Your task to perform on an android device: toggle pop-ups in chrome Image 0: 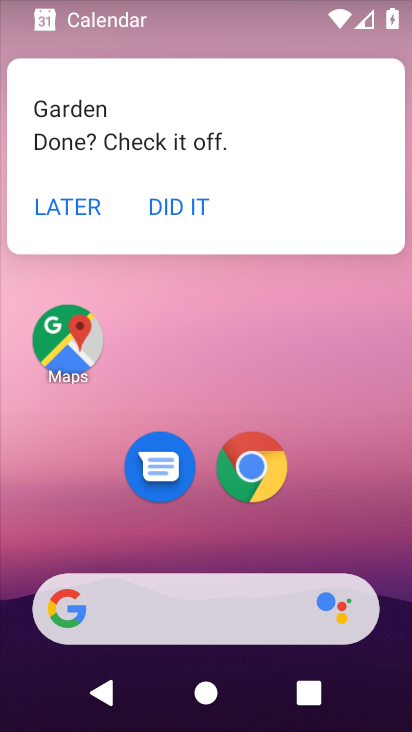
Step 0: click (257, 473)
Your task to perform on an android device: toggle pop-ups in chrome Image 1: 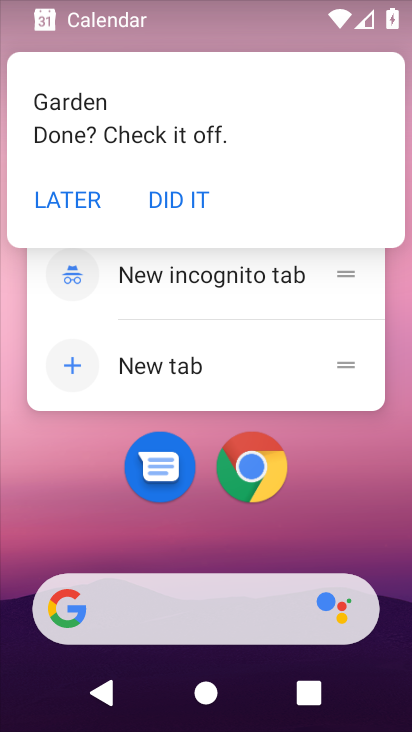
Step 1: click (257, 473)
Your task to perform on an android device: toggle pop-ups in chrome Image 2: 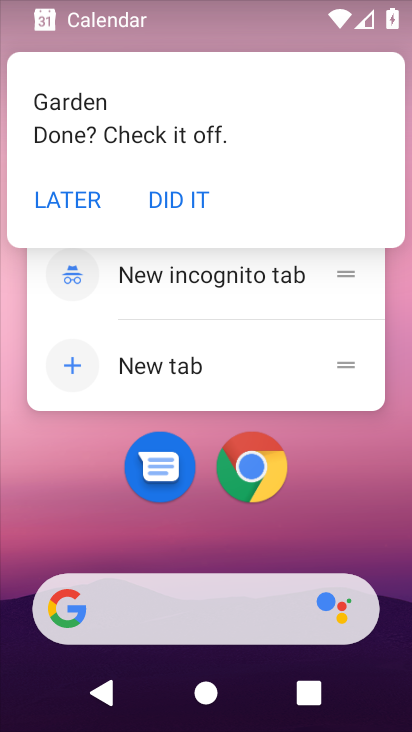
Step 2: click (265, 482)
Your task to perform on an android device: toggle pop-ups in chrome Image 3: 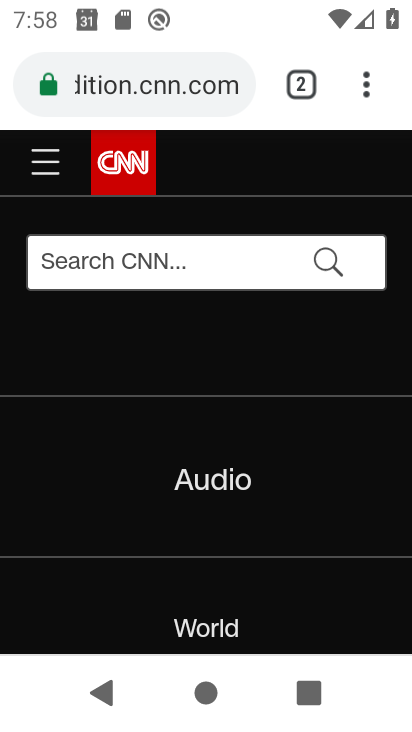
Step 3: click (366, 83)
Your task to perform on an android device: toggle pop-ups in chrome Image 4: 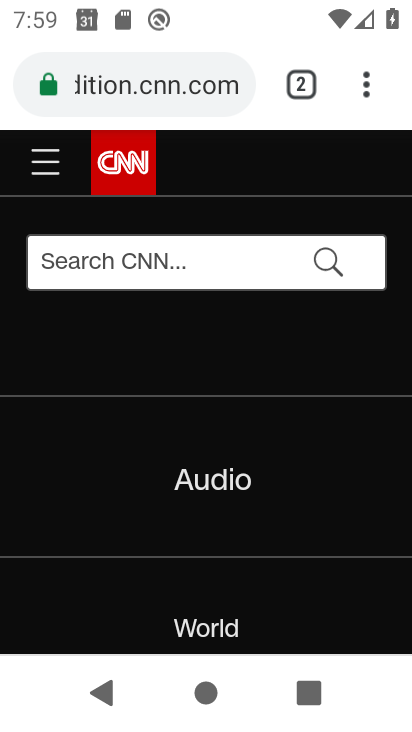
Step 4: click (367, 86)
Your task to perform on an android device: toggle pop-ups in chrome Image 5: 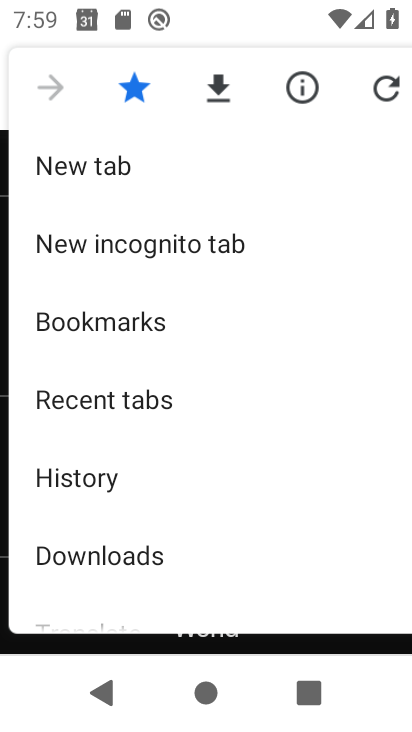
Step 5: drag from (126, 569) to (117, 287)
Your task to perform on an android device: toggle pop-ups in chrome Image 6: 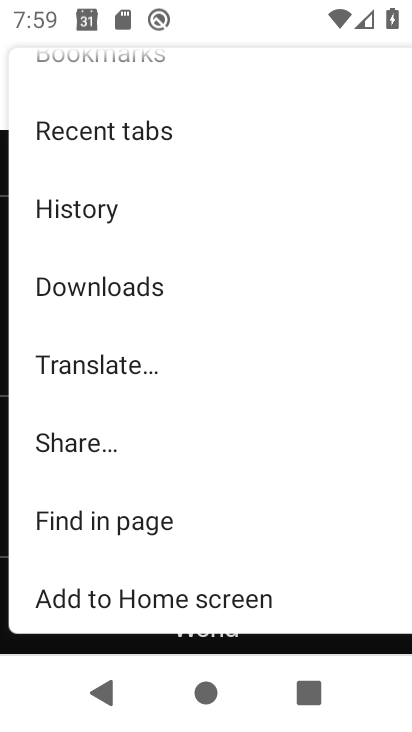
Step 6: drag from (121, 557) to (100, 375)
Your task to perform on an android device: toggle pop-ups in chrome Image 7: 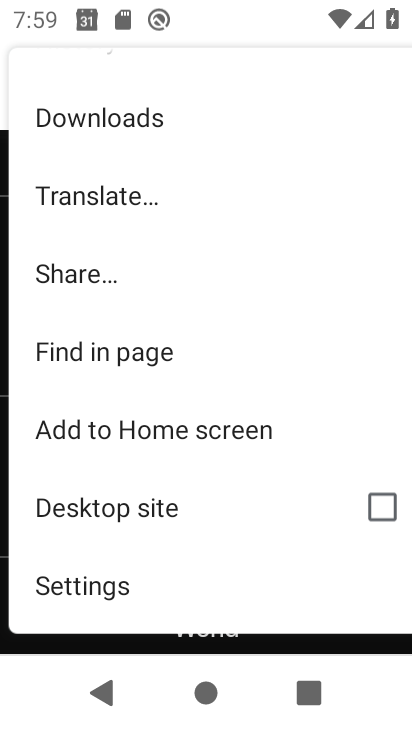
Step 7: click (139, 577)
Your task to perform on an android device: toggle pop-ups in chrome Image 8: 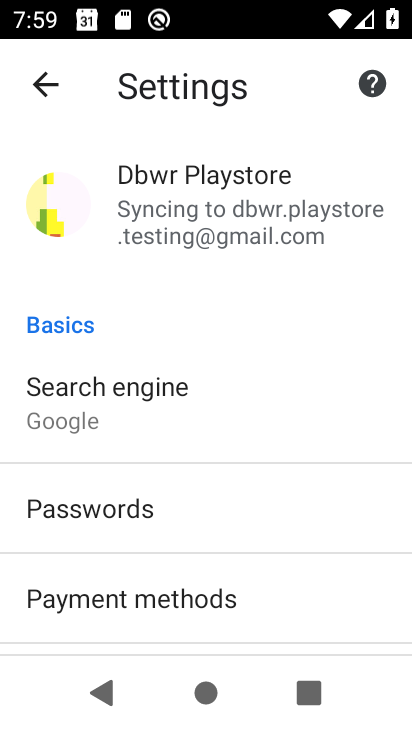
Step 8: drag from (103, 617) to (93, 511)
Your task to perform on an android device: toggle pop-ups in chrome Image 9: 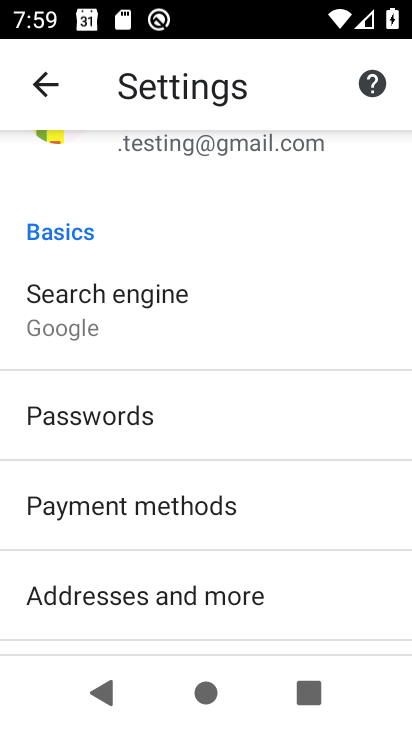
Step 9: drag from (114, 601) to (103, 488)
Your task to perform on an android device: toggle pop-ups in chrome Image 10: 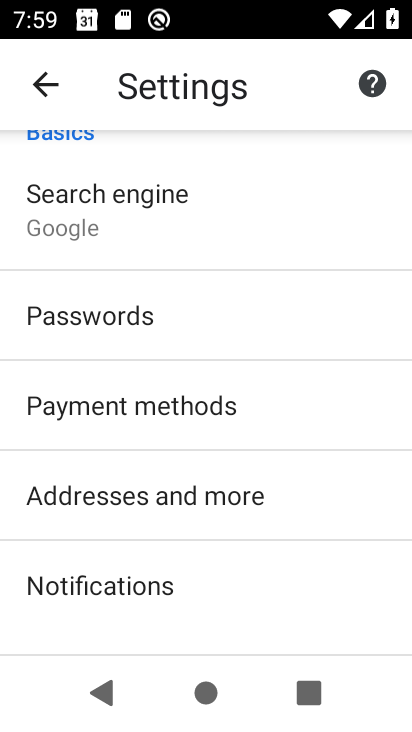
Step 10: drag from (135, 613) to (121, 503)
Your task to perform on an android device: toggle pop-ups in chrome Image 11: 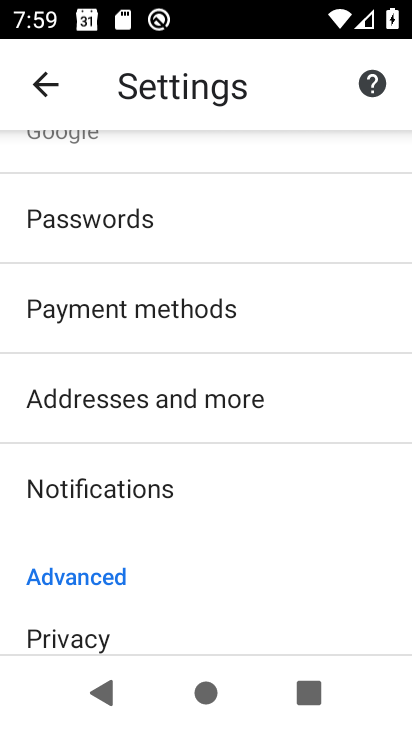
Step 11: drag from (146, 637) to (122, 499)
Your task to perform on an android device: toggle pop-ups in chrome Image 12: 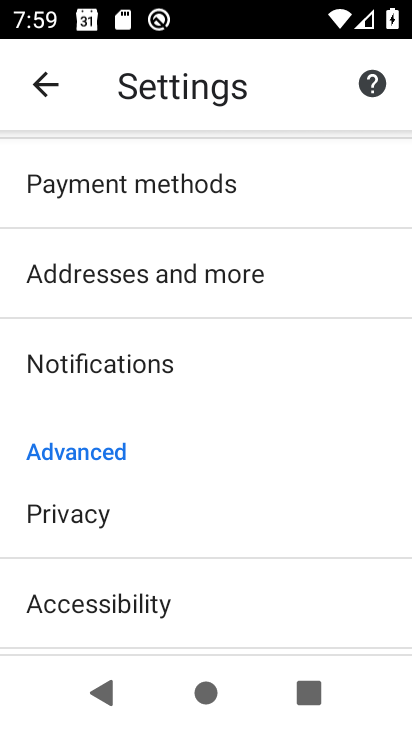
Step 12: drag from (98, 597) to (116, 381)
Your task to perform on an android device: toggle pop-ups in chrome Image 13: 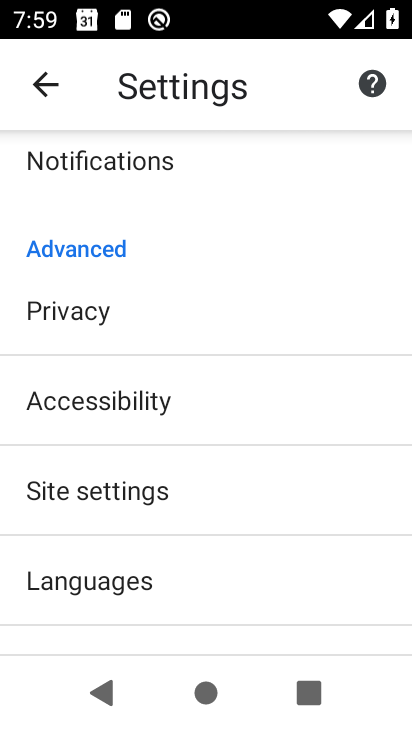
Step 13: drag from (171, 589) to (165, 437)
Your task to perform on an android device: toggle pop-ups in chrome Image 14: 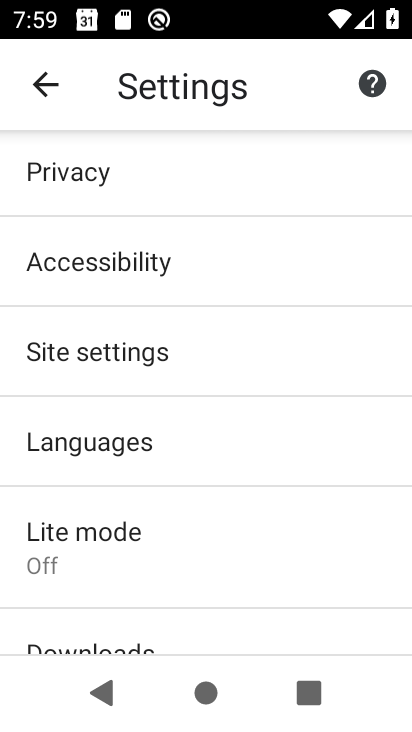
Step 14: click (170, 369)
Your task to perform on an android device: toggle pop-ups in chrome Image 15: 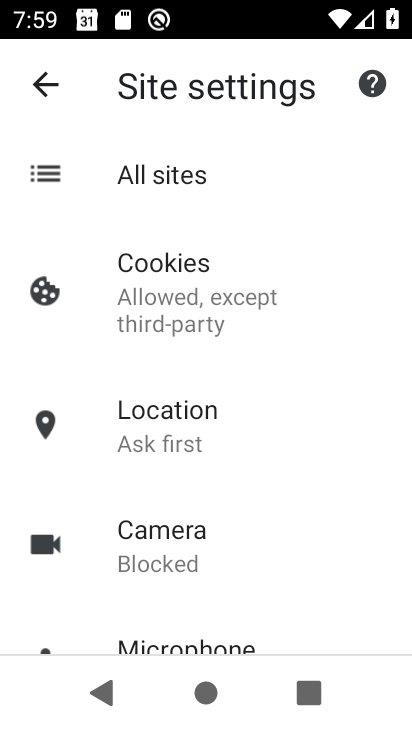
Step 15: drag from (141, 611) to (131, 510)
Your task to perform on an android device: toggle pop-ups in chrome Image 16: 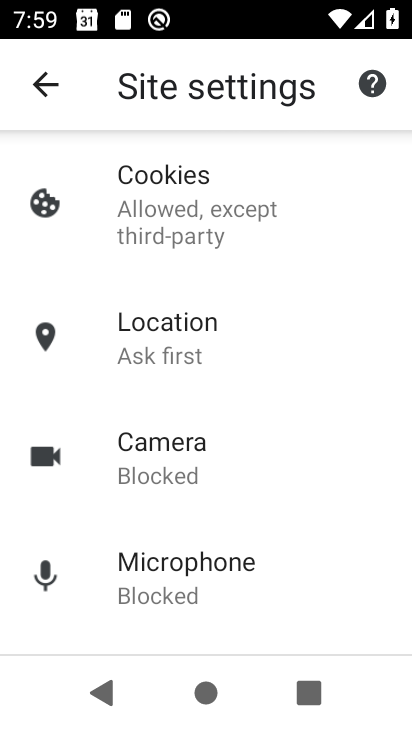
Step 16: drag from (126, 616) to (121, 518)
Your task to perform on an android device: toggle pop-ups in chrome Image 17: 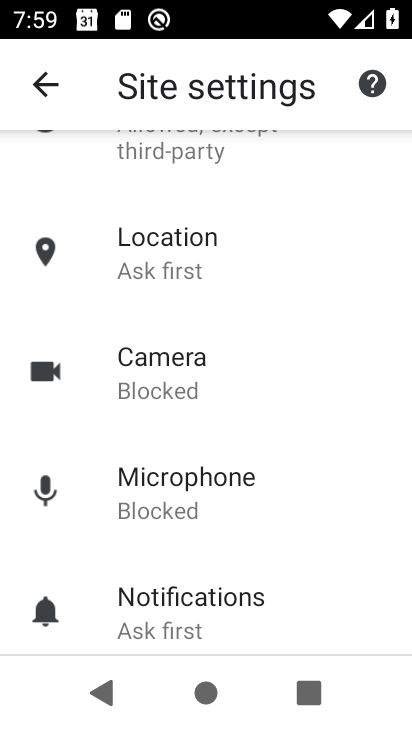
Step 17: drag from (137, 596) to (147, 503)
Your task to perform on an android device: toggle pop-ups in chrome Image 18: 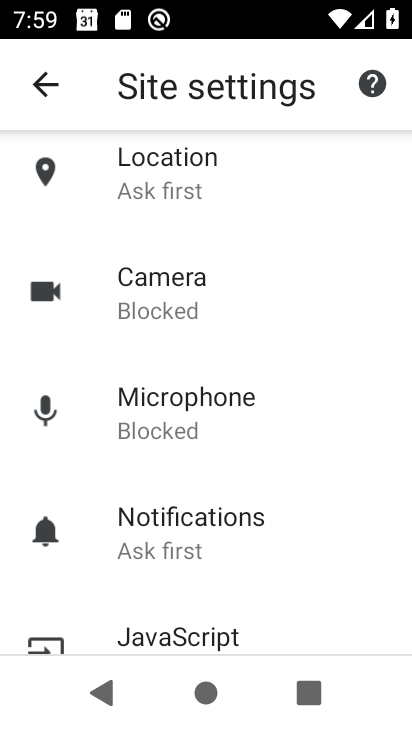
Step 18: drag from (156, 580) to (158, 500)
Your task to perform on an android device: toggle pop-ups in chrome Image 19: 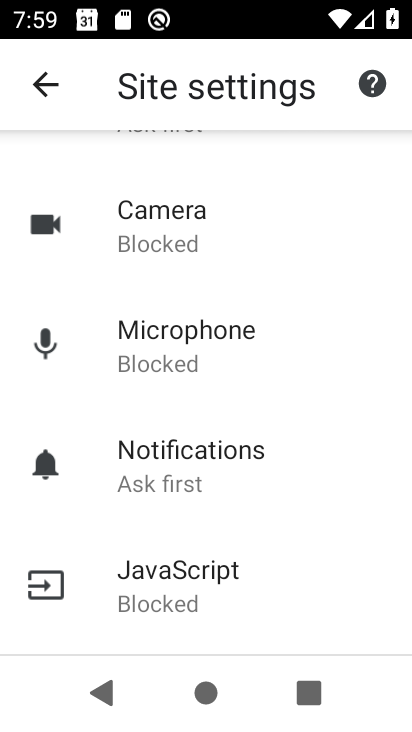
Step 19: drag from (155, 580) to (168, 427)
Your task to perform on an android device: toggle pop-ups in chrome Image 20: 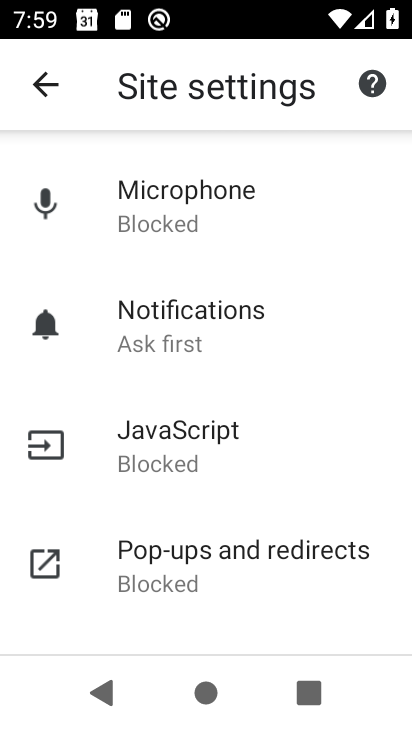
Step 20: click (170, 545)
Your task to perform on an android device: toggle pop-ups in chrome Image 21: 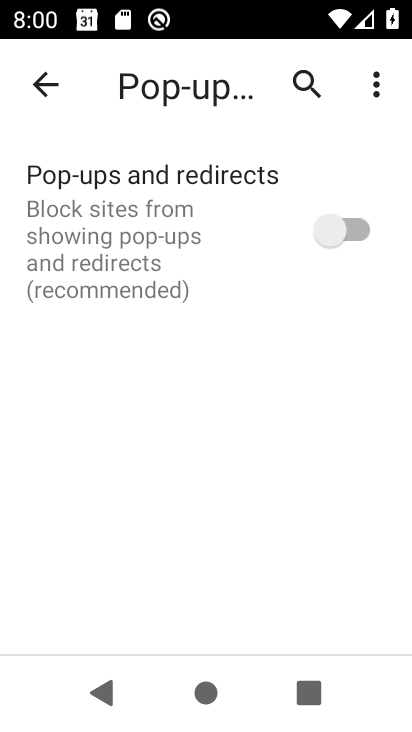
Step 21: click (330, 226)
Your task to perform on an android device: toggle pop-ups in chrome Image 22: 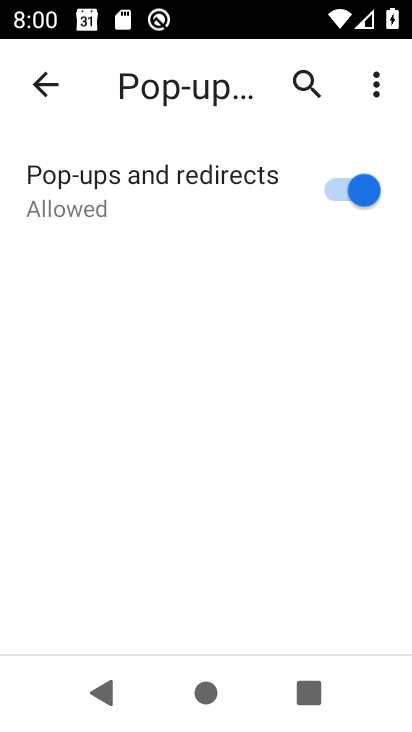
Step 22: task complete